Your task to perform on an android device: Open the calendar app, open the side menu, and click the "Day" option Image 0: 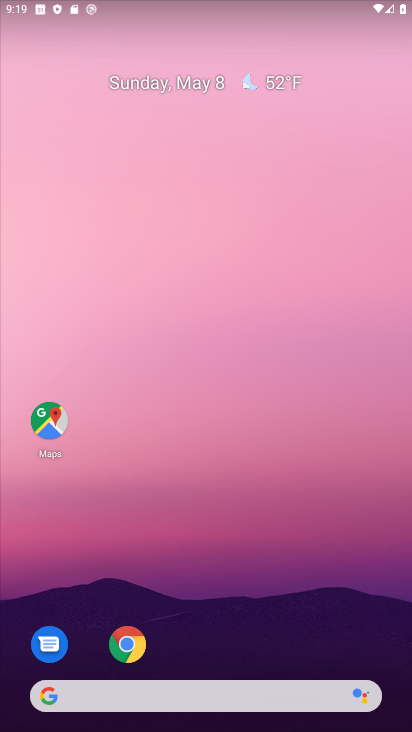
Step 0: drag from (208, 590) to (215, 113)
Your task to perform on an android device: Open the calendar app, open the side menu, and click the "Day" option Image 1: 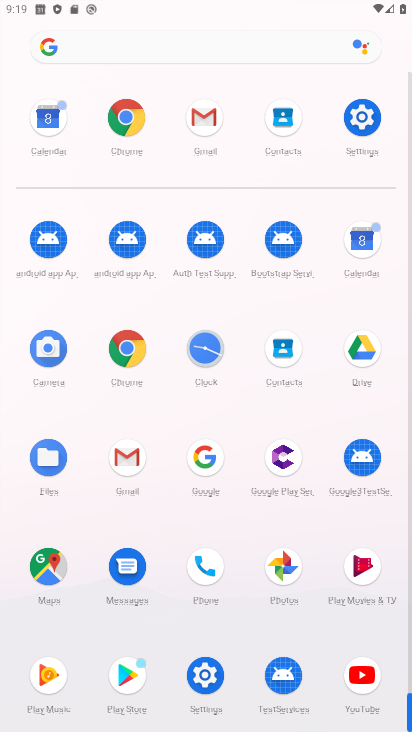
Step 1: click (364, 235)
Your task to perform on an android device: Open the calendar app, open the side menu, and click the "Day" option Image 2: 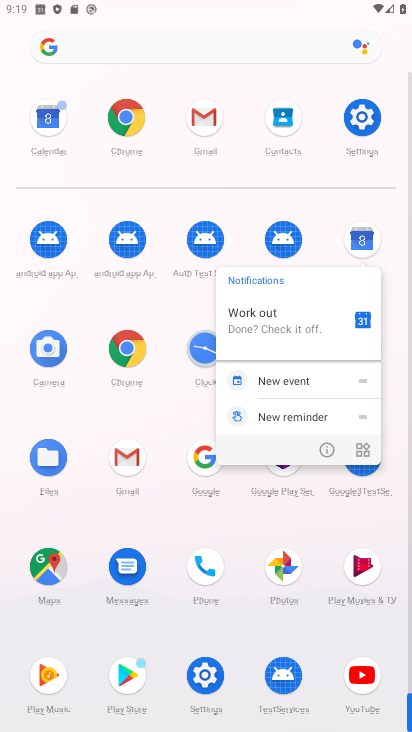
Step 2: click (318, 445)
Your task to perform on an android device: Open the calendar app, open the side menu, and click the "Day" option Image 3: 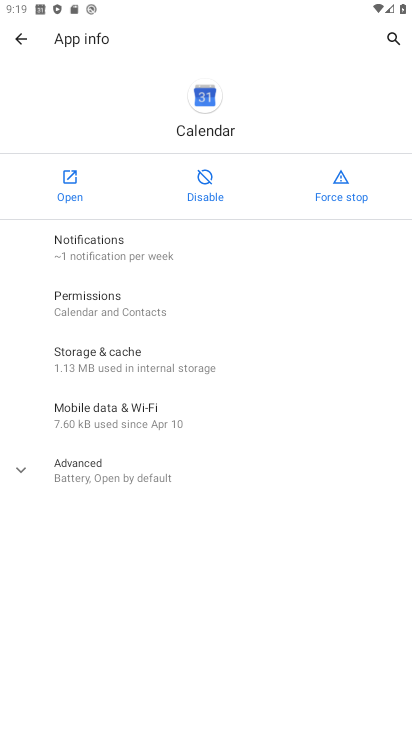
Step 3: click (77, 177)
Your task to perform on an android device: Open the calendar app, open the side menu, and click the "Day" option Image 4: 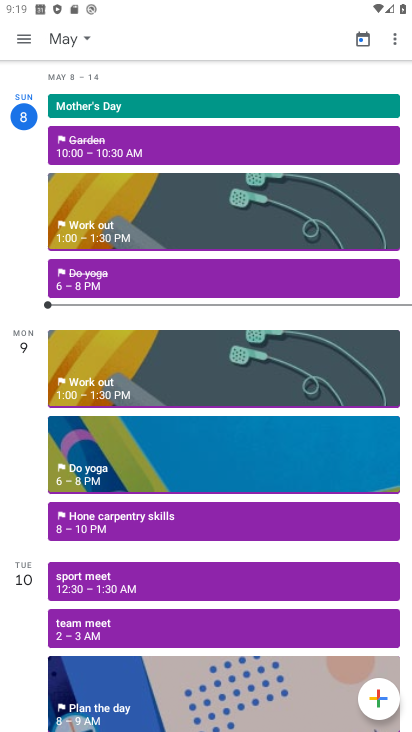
Step 4: click (26, 50)
Your task to perform on an android device: Open the calendar app, open the side menu, and click the "Day" option Image 5: 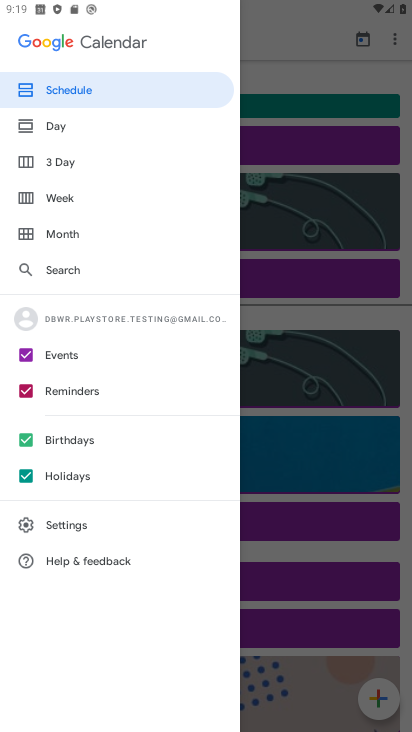
Step 5: click (52, 129)
Your task to perform on an android device: Open the calendar app, open the side menu, and click the "Day" option Image 6: 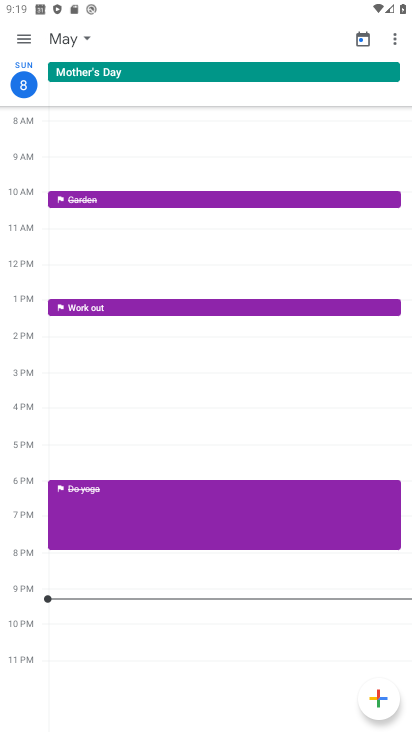
Step 6: task complete